Your task to perform on an android device: When is my next appointment? Image 0: 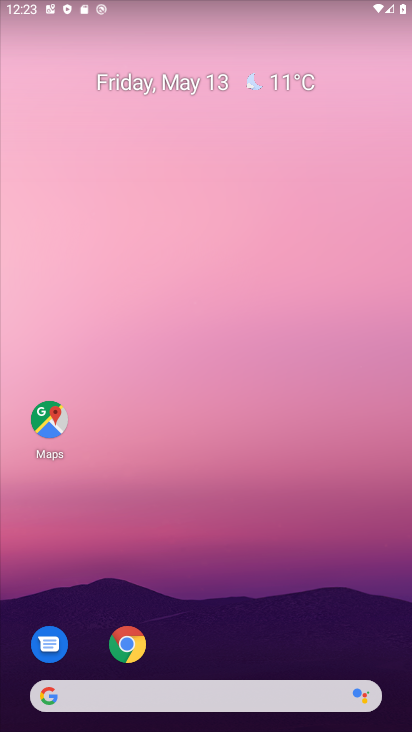
Step 0: click (220, 208)
Your task to perform on an android device: When is my next appointment? Image 1: 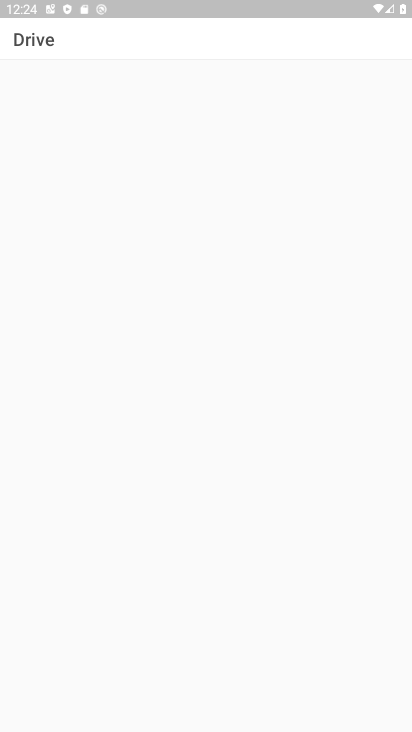
Step 1: press home button
Your task to perform on an android device: When is my next appointment? Image 2: 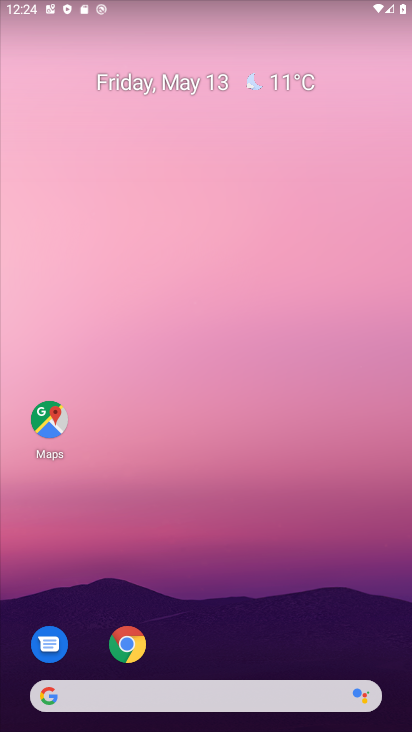
Step 2: drag from (223, 724) to (231, 109)
Your task to perform on an android device: When is my next appointment? Image 3: 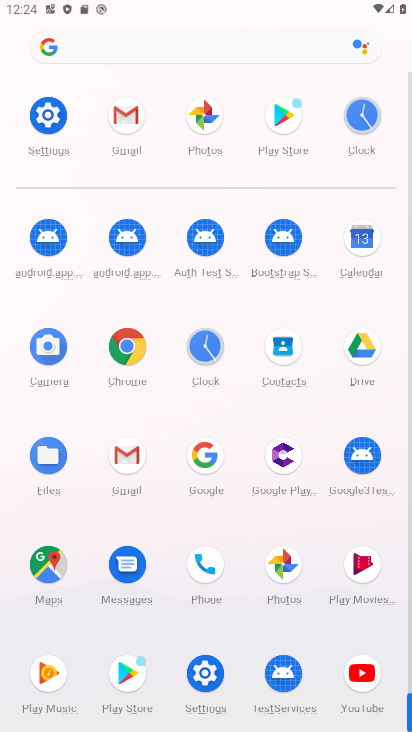
Step 3: click (365, 247)
Your task to perform on an android device: When is my next appointment? Image 4: 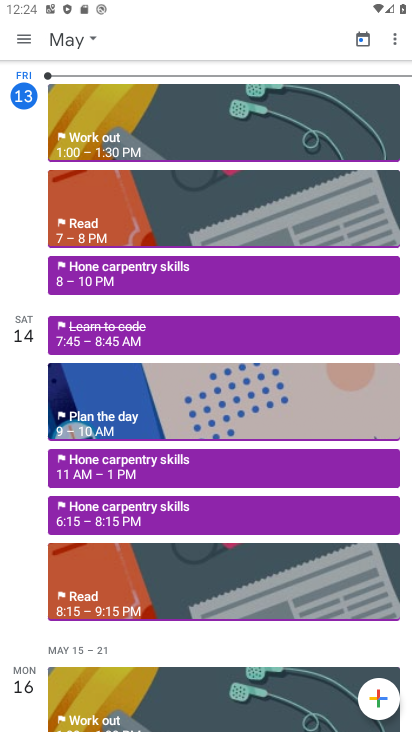
Step 4: drag from (164, 132) to (189, 479)
Your task to perform on an android device: When is my next appointment? Image 5: 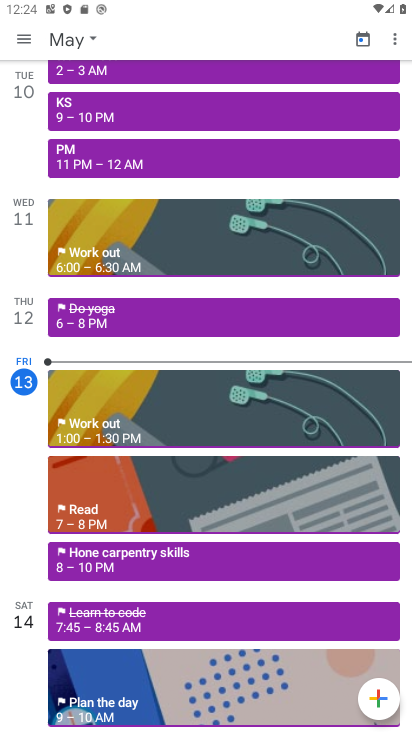
Step 5: drag from (210, 135) to (211, 469)
Your task to perform on an android device: When is my next appointment? Image 6: 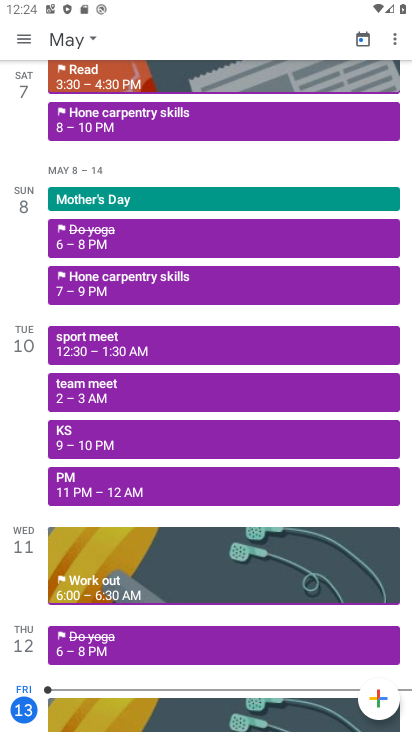
Step 6: click (74, 36)
Your task to perform on an android device: When is my next appointment? Image 7: 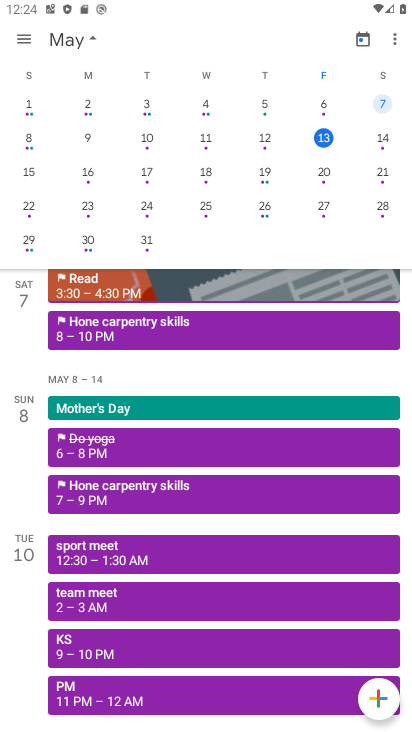
Step 7: click (377, 135)
Your task to perform on an android device: When is my next appointment? Image 8: 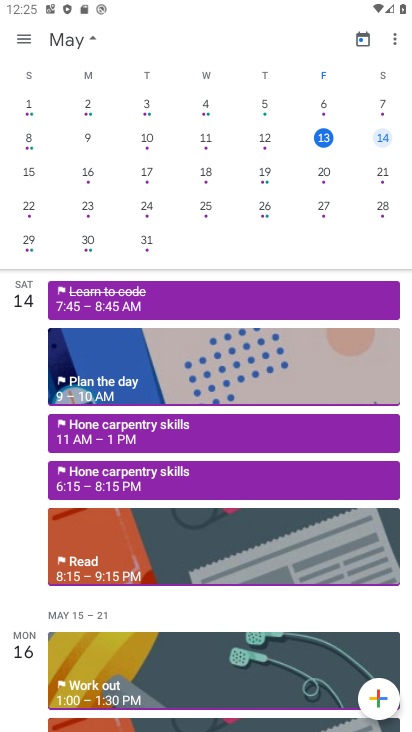
Step 8: task complete